Your task to perform on an android device: Go to network settings Image 0: 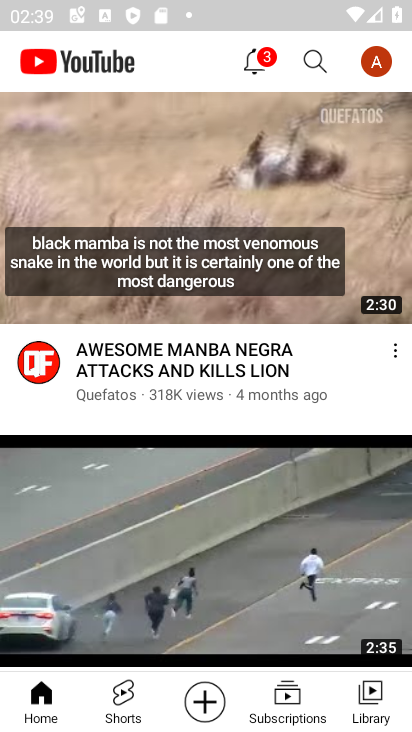
Step 0: press home button
Your task to perform on an android device: Go to network settings Image 1: 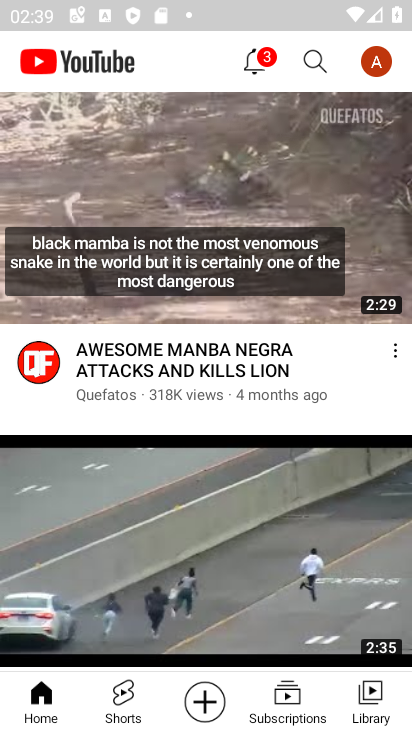
Step 1: press home button
Your task to perform on an android device: Go to network settings Image 2: 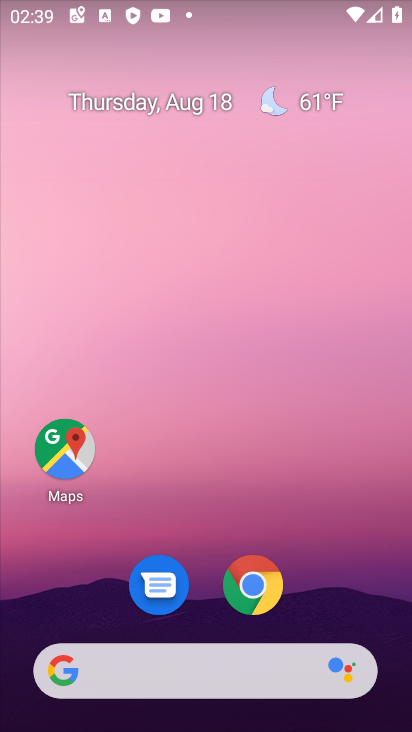
Step 2: drag from (317, 560) to (320, 6)
Your task to perform on an android device: Go to network settings Image 3: 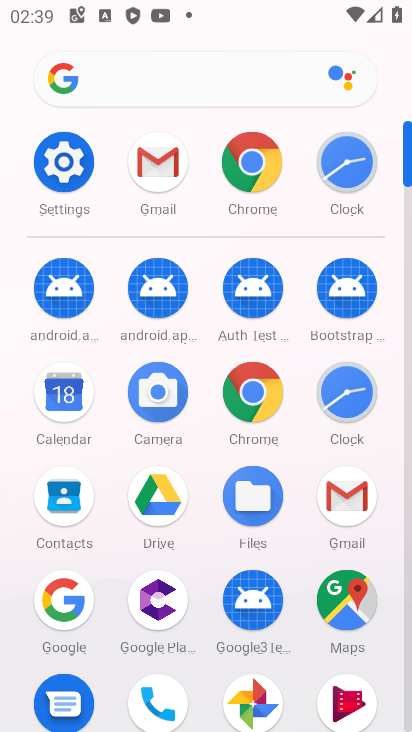
Step 3: click (71, 163)
Your task to perform on an android device: Go to network settings Image 4: 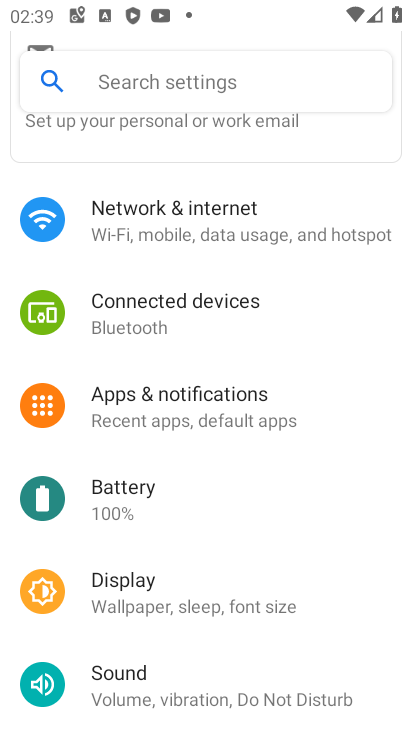
Step 4: click (212, 214)
Your task to perform on an android device: Go to network settings Image 5: 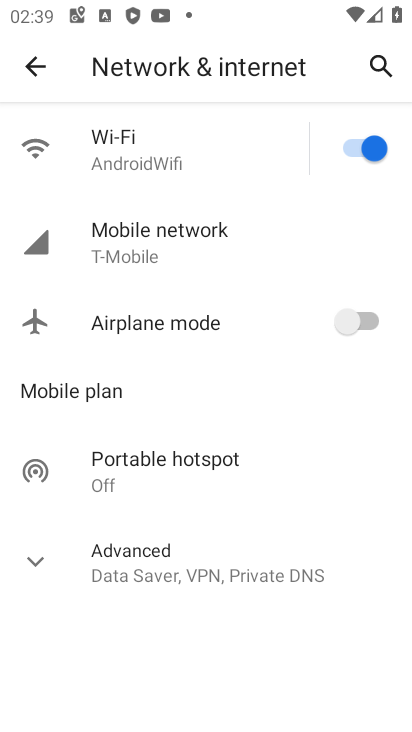
Step 5: task complete